Your task to perform on an android device: turn on data saver in the chrome app Image 0: 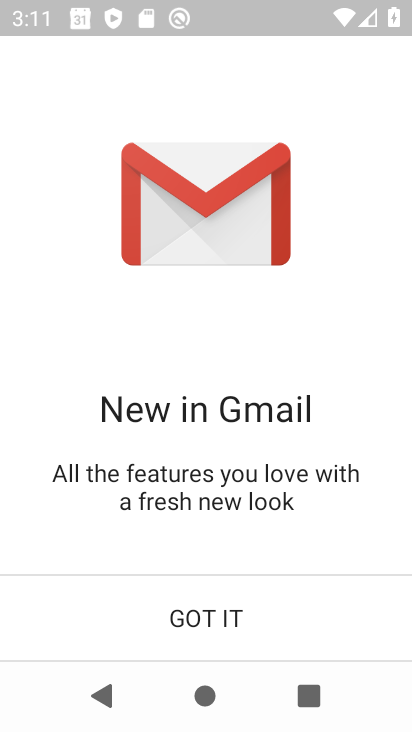
Step 0: press home button
Your task to perform on an android device: turn on data saver in the chrome app Image 1: 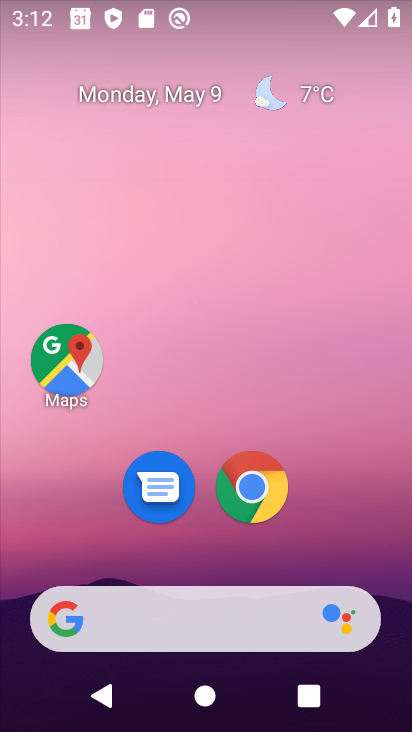
Step 1: drag from (300, 560) to (318, 94)
Your task to perform on an android device: turn on data saver in the chrome app Image 2: 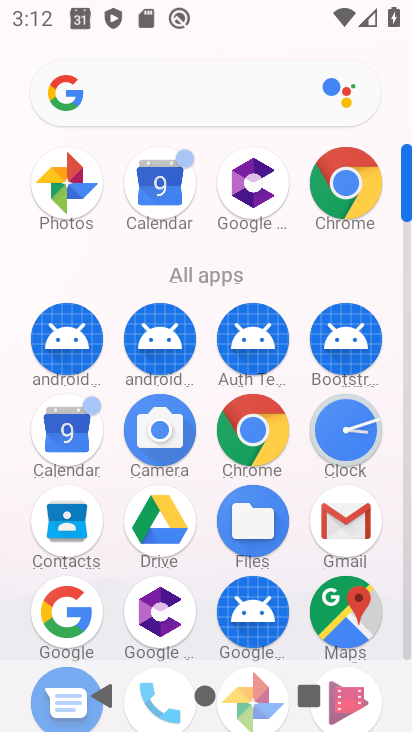
Step 2: click (259, 435)
Your task to perform on an android device: turn on data saver in the chrome app Image 3: 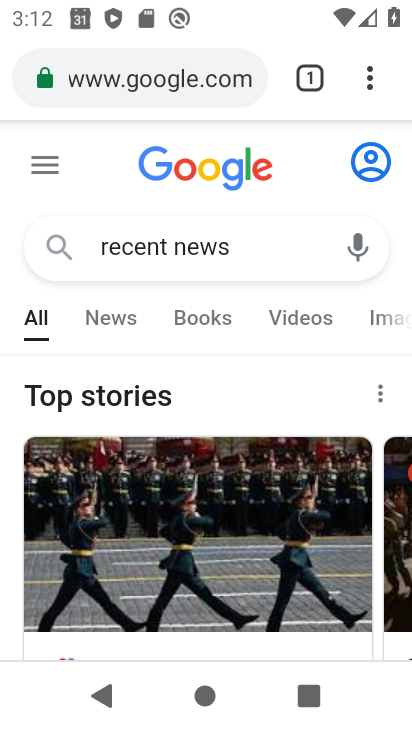
Step 3: drag from (368, 70) to (158, 555)
Your task to perform on an android device: turn on data saver in the chrome app Image 4: 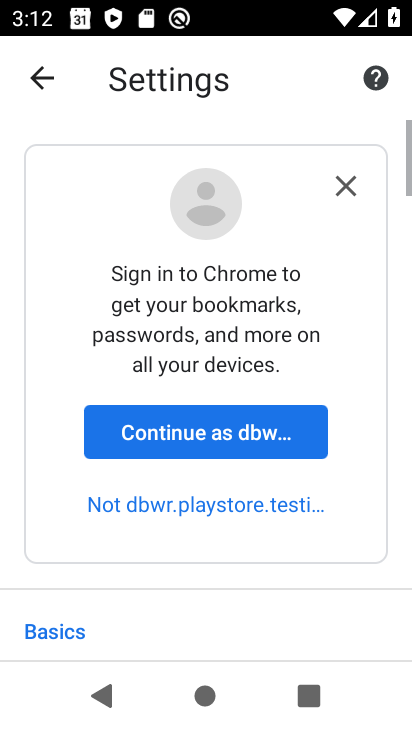
Step 4: drag from (240, 626) to (234, 210)
Your task to perform on an android device: turn on data saver in the chrome app Image 5: 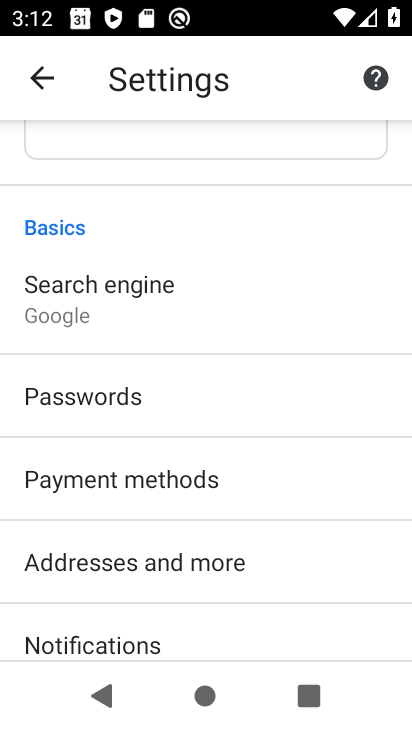
Step 5: drag from (232, 626) to (263, 220)
Your task to perform on an android device: turn on data saver in the chrome app Image 6: 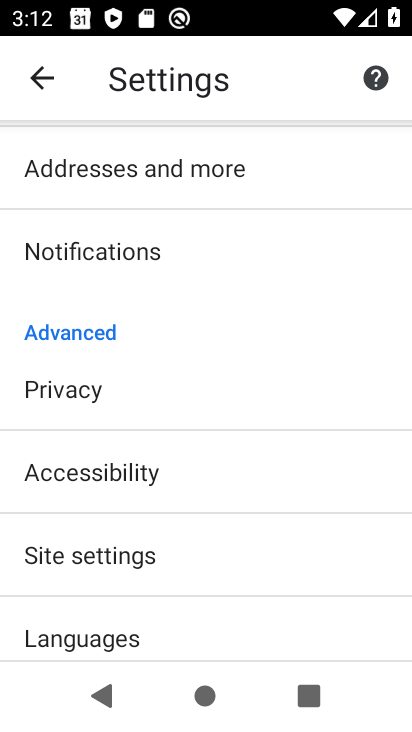
Step 6: drag from (134, 621) to (160, 145)
Your task to perform on an android device: turn on data saver in the chrome app Image 7: 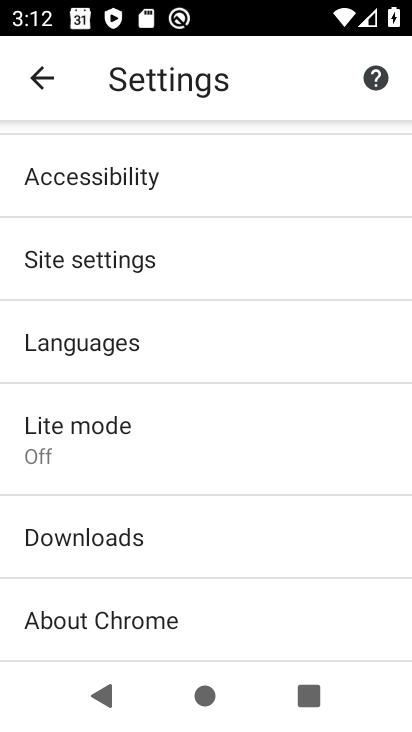
Step 7: click (84, 434)
Your task to perform on an android device: turn on data saver in the chrome app Image 8: 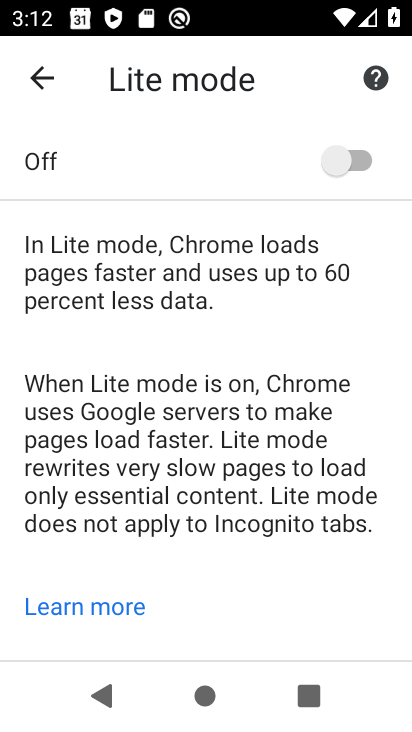
Step 8: click (360, 160)
Your task to perform on an android device: turn on data saver in the chrome app Image 9: 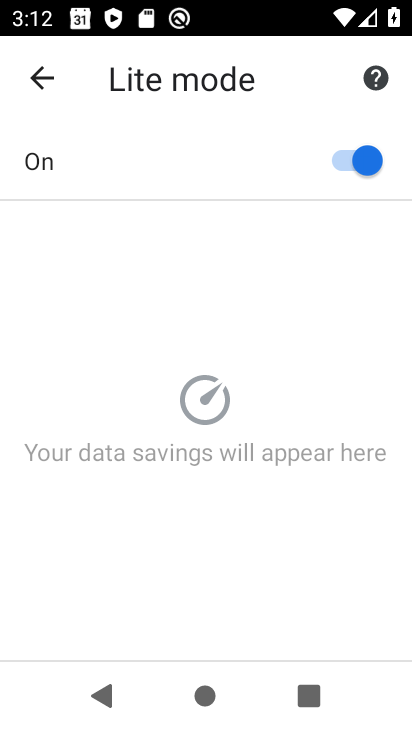
Step 9: task complete